Your task to perform on an android device: Go to notification settings Image 0: 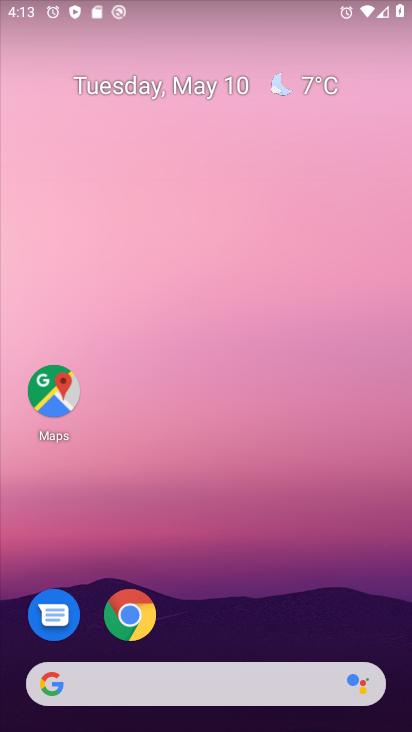
Step 0: drag from (262, 585) to (241, 12)
Your task to perform on an android device: Go to notification settings Image 1: 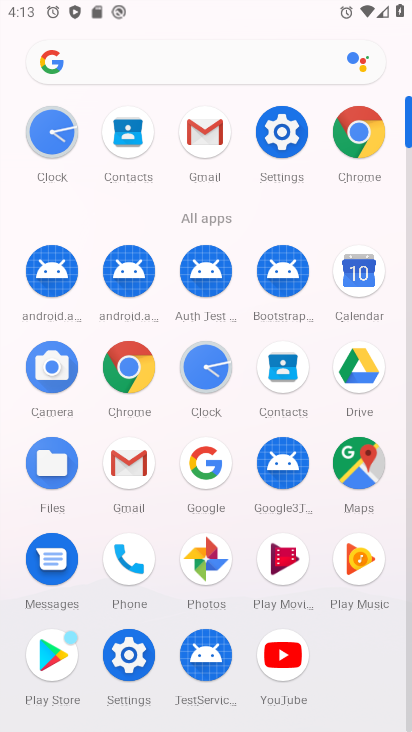
Step 1: click (130, 653)
Your task to perform on an android device: Go to notification settings Image 2: 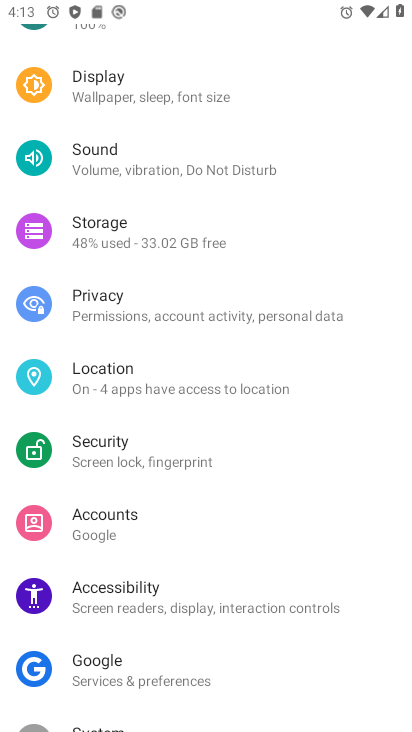
Step 2: drag from (232, 608) to (232, 176)
Your task to perform on an android device: Go to notification settings Image 3: 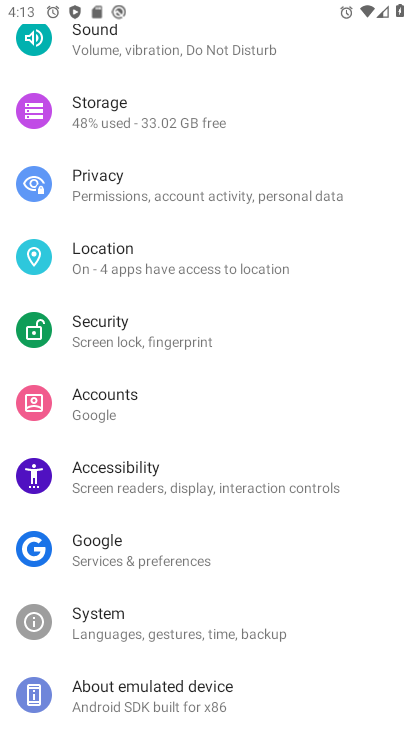
Step 3: drag from (215, 95) to (231, 470)
Your task to perform on an android device: Go to notification settings Image 4: 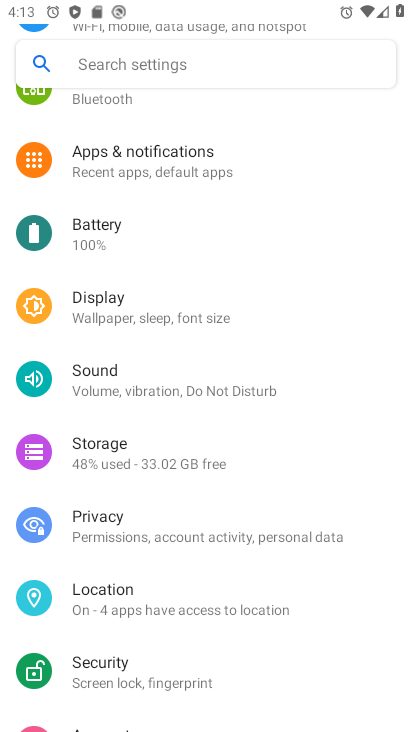
Step 4: click (160, 158)
Your task to perform on an android device: Go to notification settings Image 5: 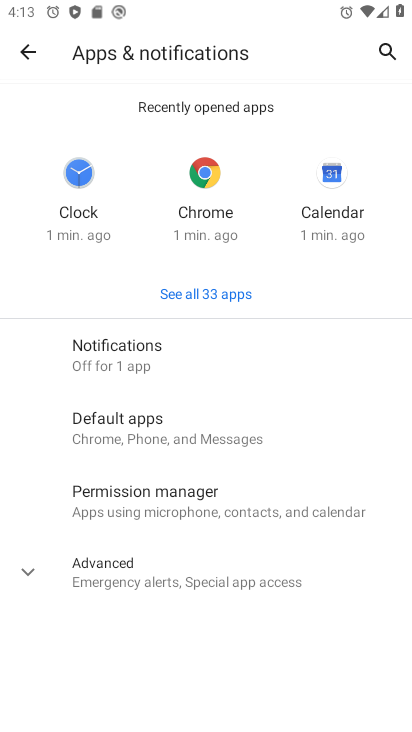
Step 5: click (160, 353)
Your task to perform on an android device: Go to notification settings Image 6: 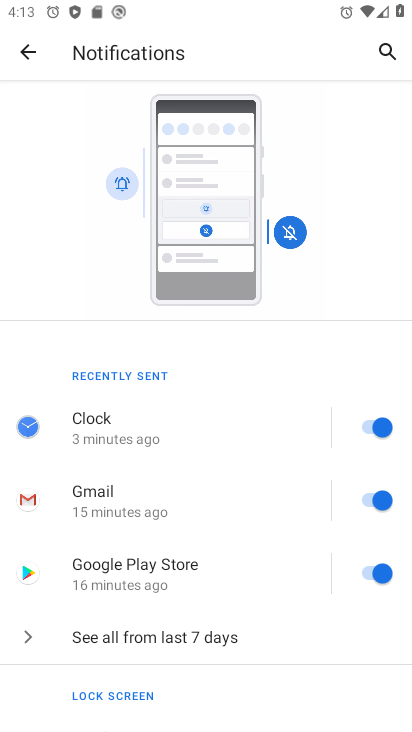
Step 6: drag from (166, 537) to (170, 151)
Your task to perform on an android device: Go to notification settings Image 7: 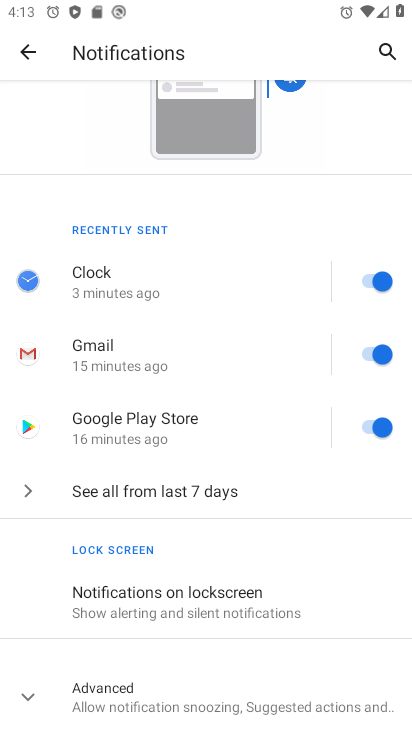
Step 7: click (53, 689)
Your task to perform on an android device: Go to notification settings Image 8: 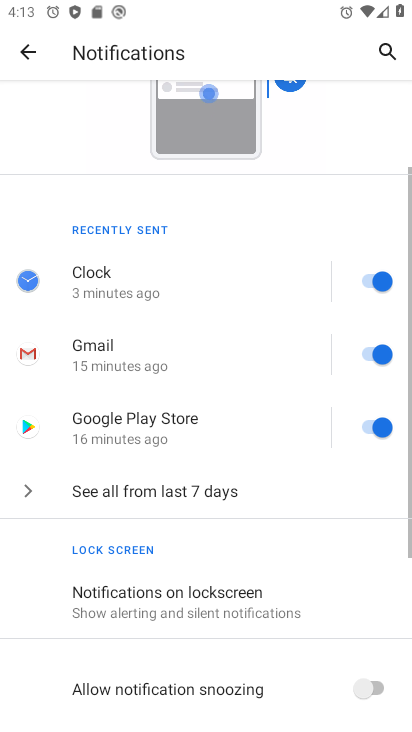
Step 8: task complete